Your task to perform on an android device: Go to battery settings Image 0: 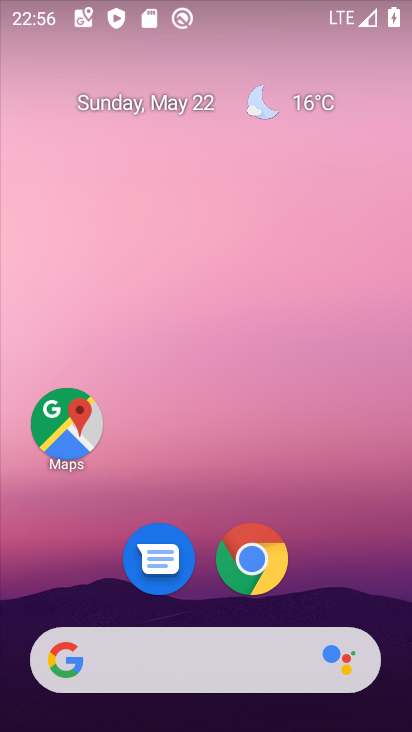
Step 0: drag from (231, 691) to (265, 50)
Your task to perform on an android device: Go to battery settings Image 1: 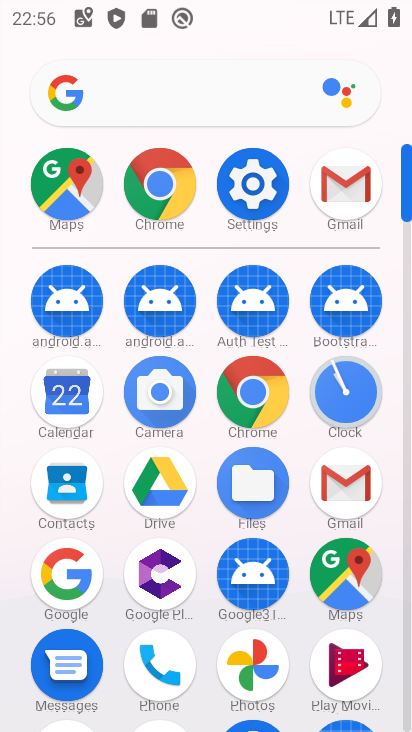
Step 1: click (247, 168)
Your task to perform on an android device: Go to battery settings Image 2: 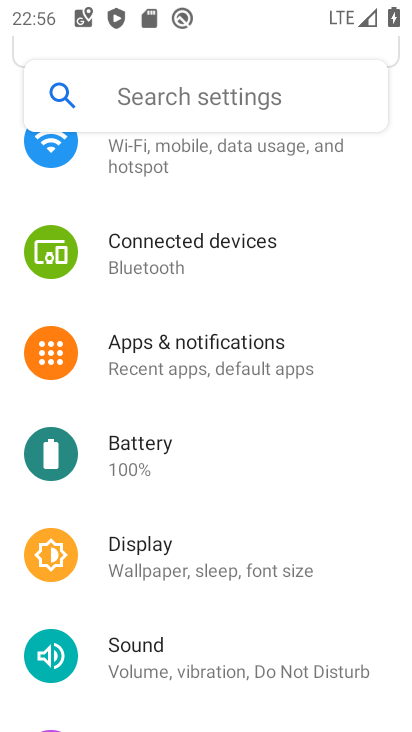
Step 2: click (161, 436)
Your task to perform on an android device: Go to battery settings Image 3: 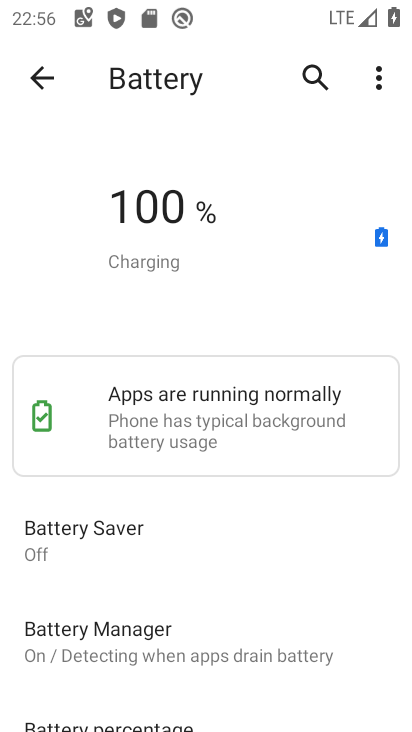
Step 3: task complete